Your task to perform on an android device: change notification settings in the gmail app Image 0: 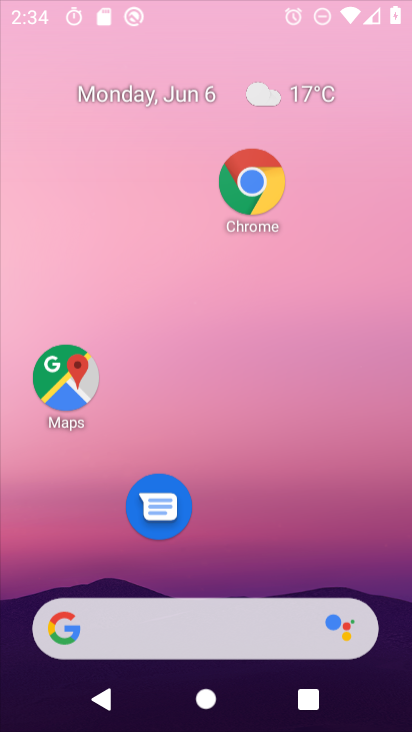
Step 0: click (135, 97)
Your task to perform on an android device: change notification settings in the gmail app Image 1: 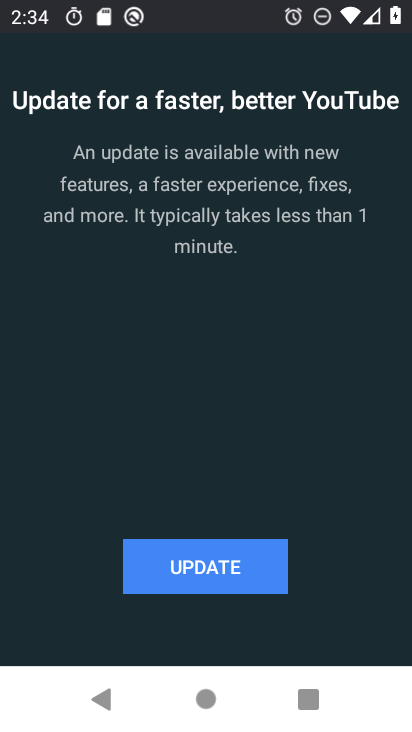
Step 1: press back button
Your task to perform on an android device: change notification settings in the gmail app Image 2: 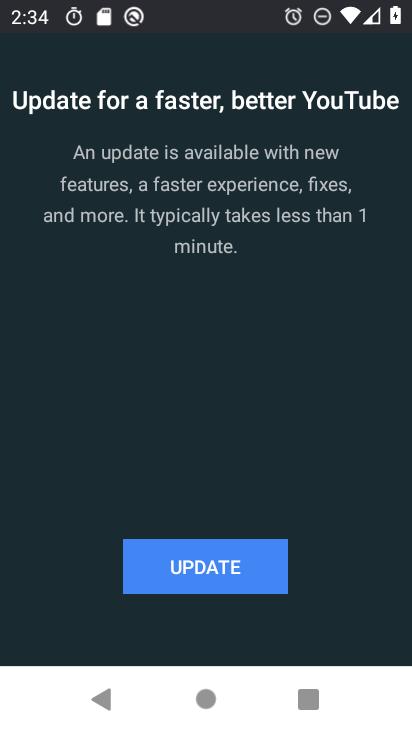
Step 2: press back button
Your task to perform on an android device: change notification settings in the gmail app Image 3: 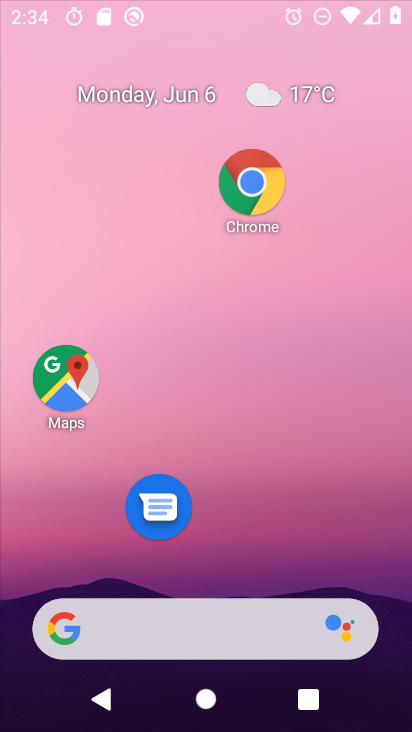
Step 3: press back button
Your task to perform on an android device: change notification settings in the gmail app Image 4: 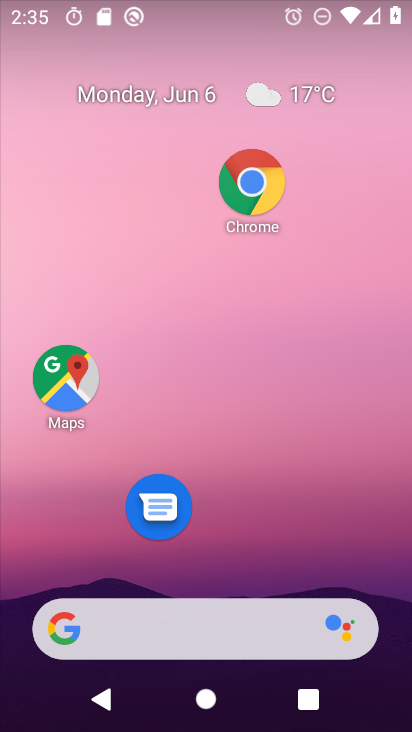
Step 4: drag from (241, 660) to (244, 134)
Your task to perform on an android device: change notification settings in the gmail app Image 5: 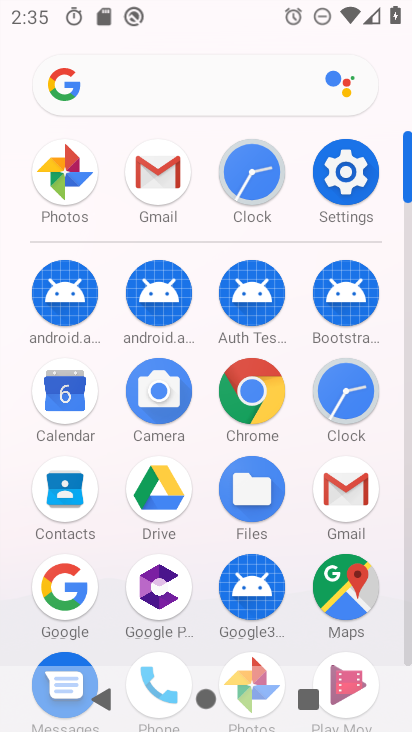
Step 5: click (348, 507)
Your task to perform on an android device: change notification settings in the gmail app Image 6: 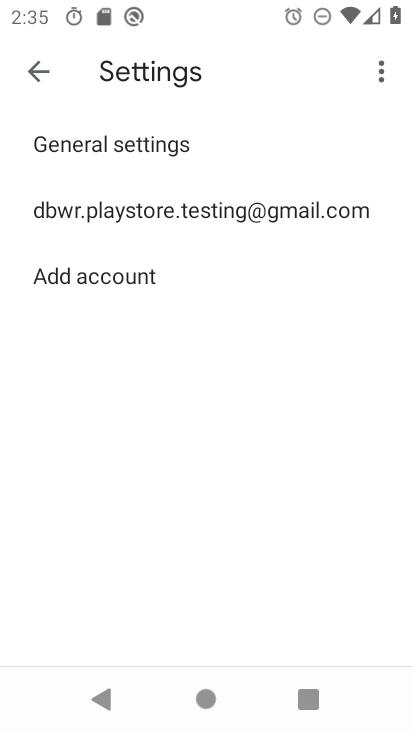
Step 6: click (117, 214)
Your task to perform on an android device: change notification settings in the gmail app Image 7: 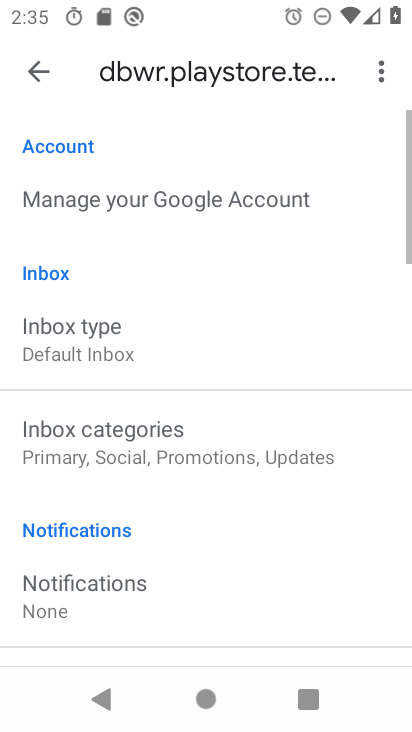
Step 7: click (127, 578)
Your task to perform on an android device: change notification settings in the gmail app Image 8: 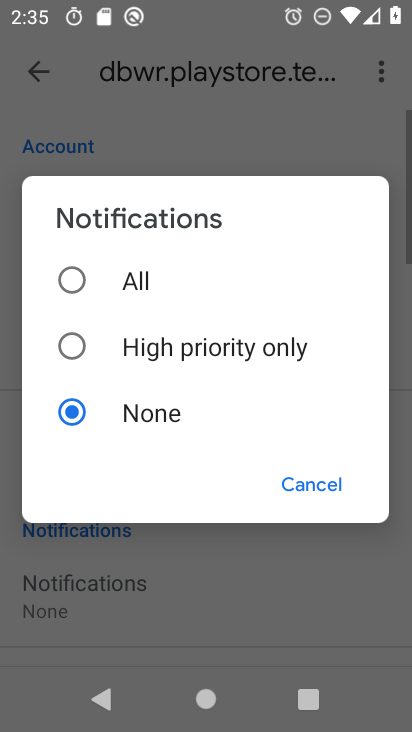
Step 8: click (116, 279)
Your task to perform on an android device: change notification settings in the gmail app Image 9: 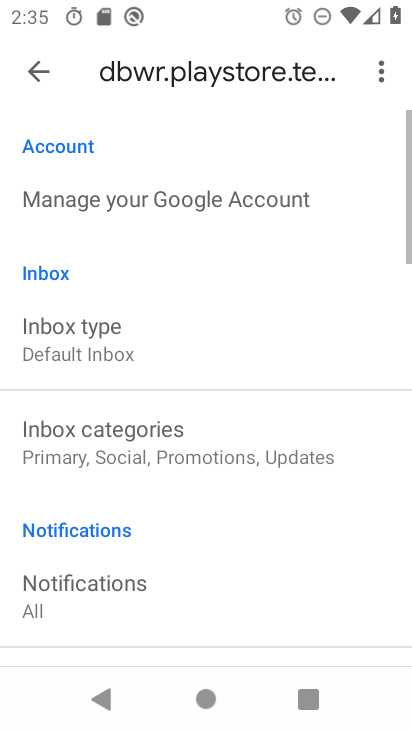
Step 9: task complete